Your task to perform on an android device: Clear the cart on target.com. Search for "lenovo thinkpad" on target.com, select the first entry, add it to the cart, then select checkout. Image 0: 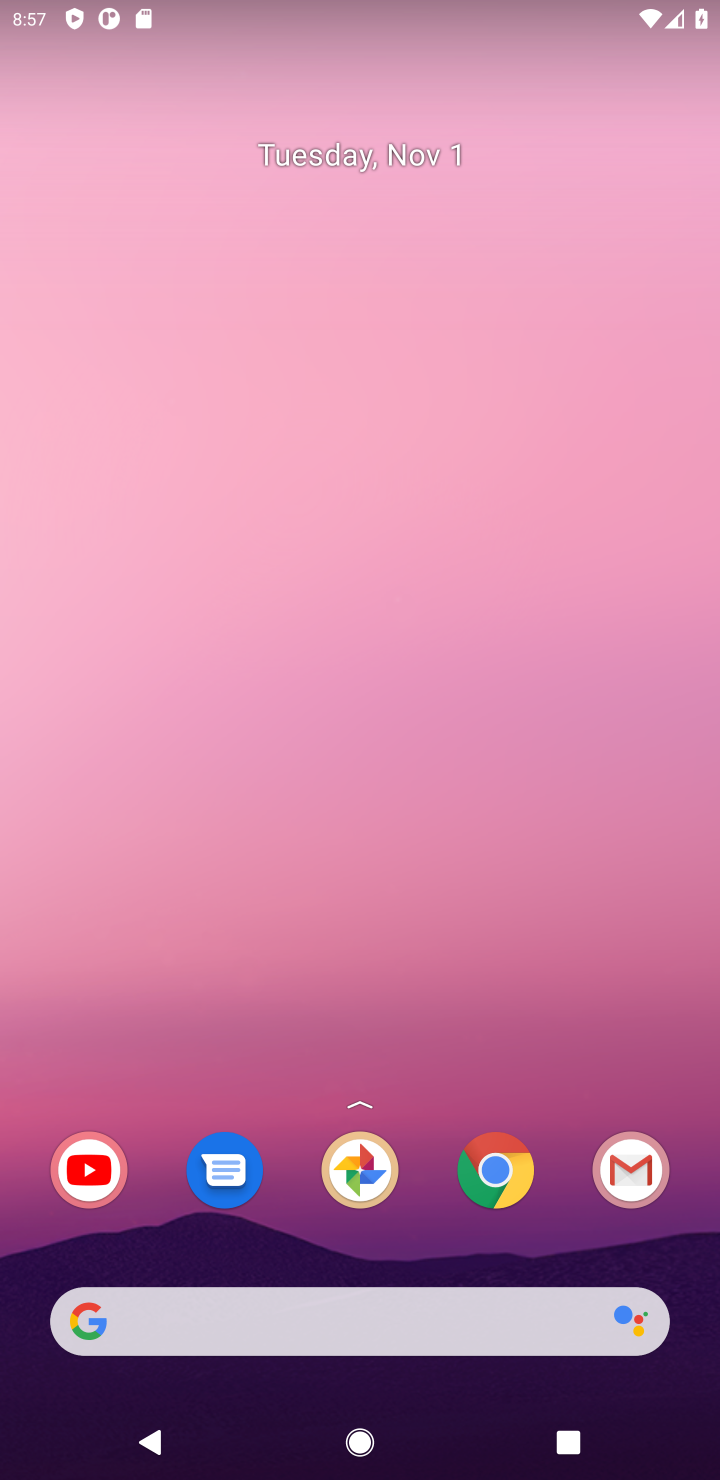
Step 0: click (486, 1209)
Your task to perform on an android device: Clear the cart on target.com. Search for "lenovo thinkpad" on target.com, select the first entry, add it to the cart, then select checkout. Image 1: 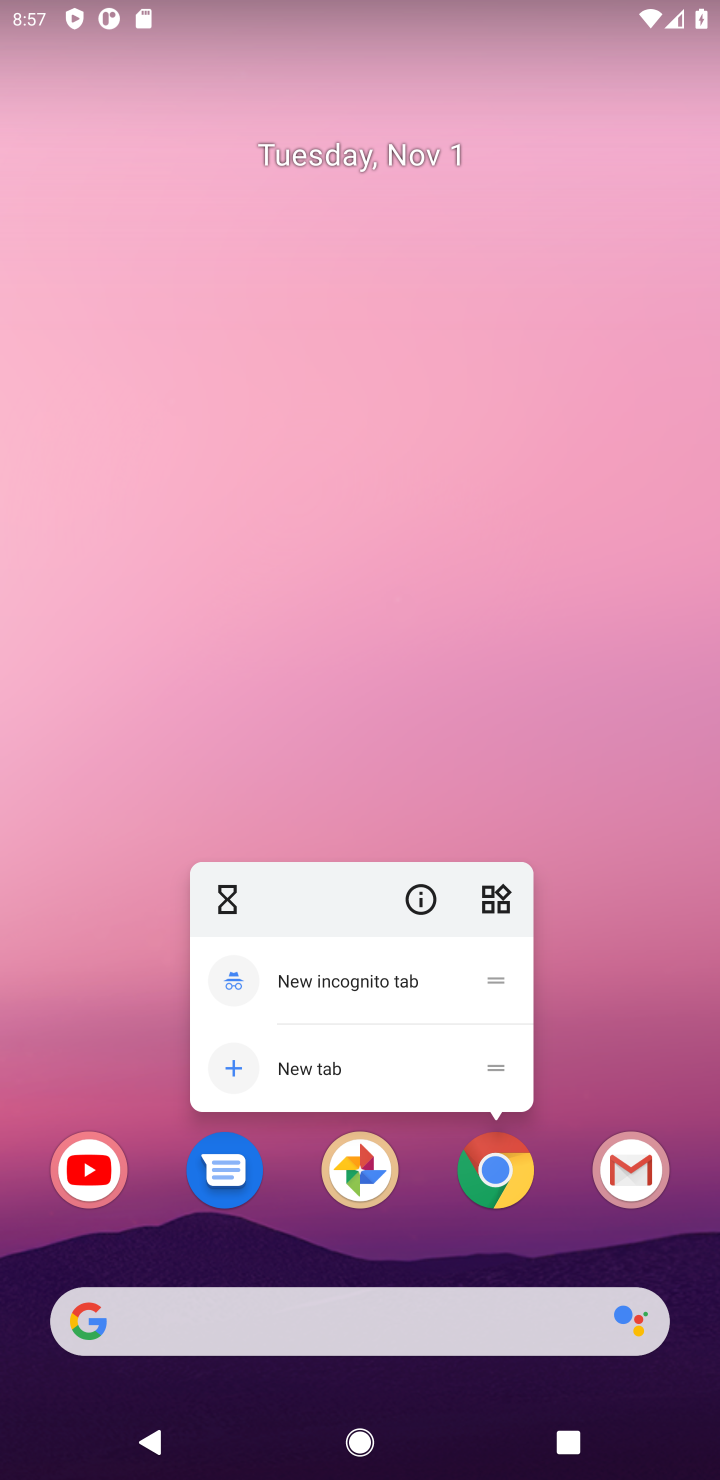
Step 1: click (511, 1195)
Your task to perform on an android device: Clear the cart on target.com. Search for "lenovo thinkpad" on target.com, select the first entry, add it to the cart, then select checkout. Image 2: 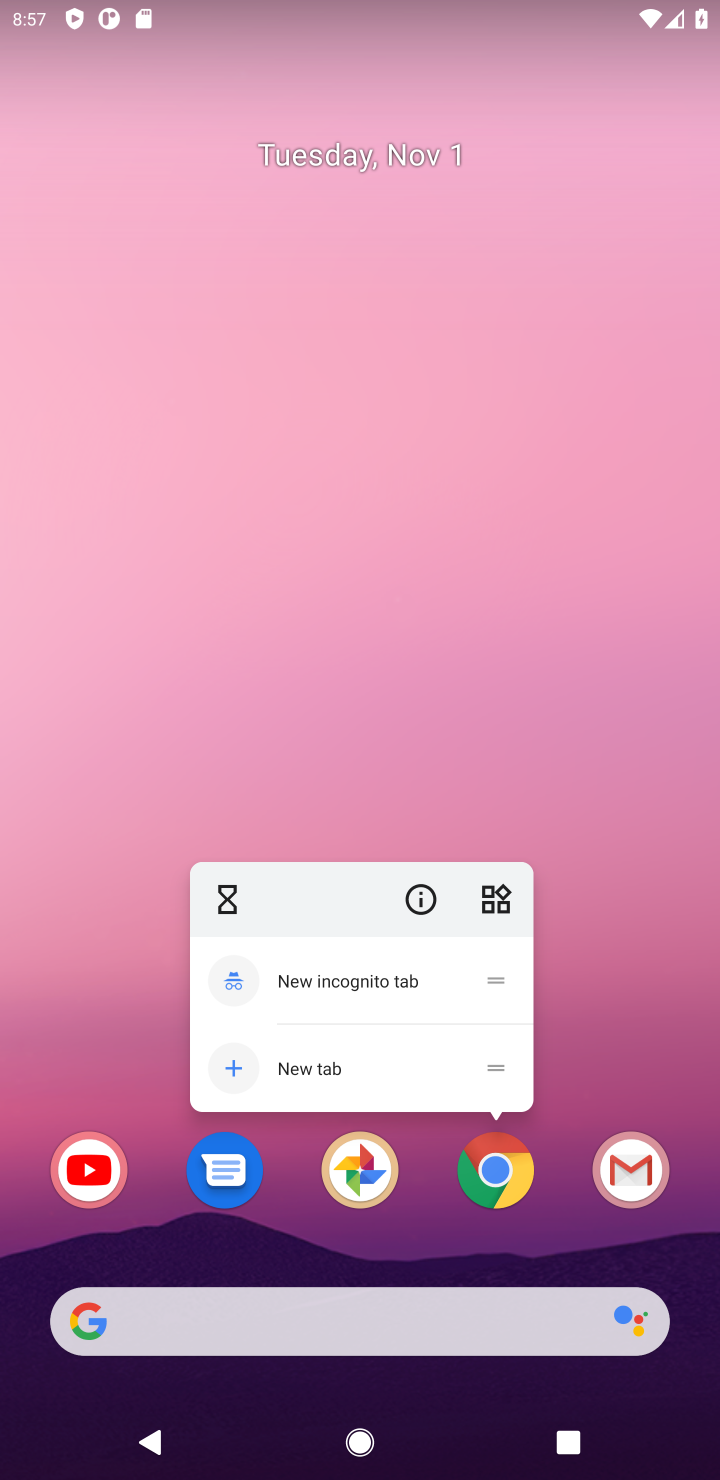
Step 2: click (515, 1174)
Your task to perform on an android device: Clear the cart on target.com. Search for "lenovo thinkpad" on target.com, select the first entry, add it to the cart, then select checkout. Image 3: 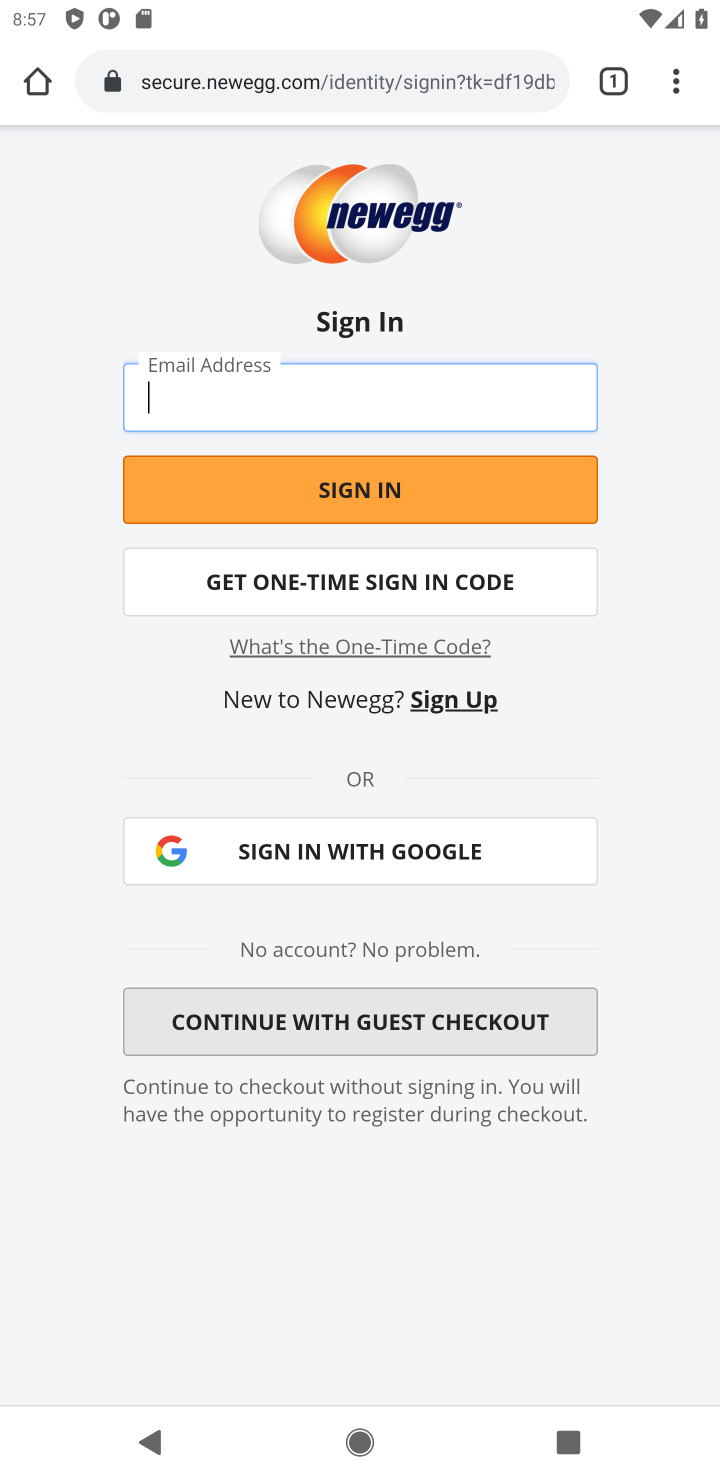
Step 3: click (383, 68)
Your task to perform on an android device: Clear the cart on target.com. Search for "lenovo thinkpad" on target.com, select the first entry, add it to the cart, then select checkout. Image 4: 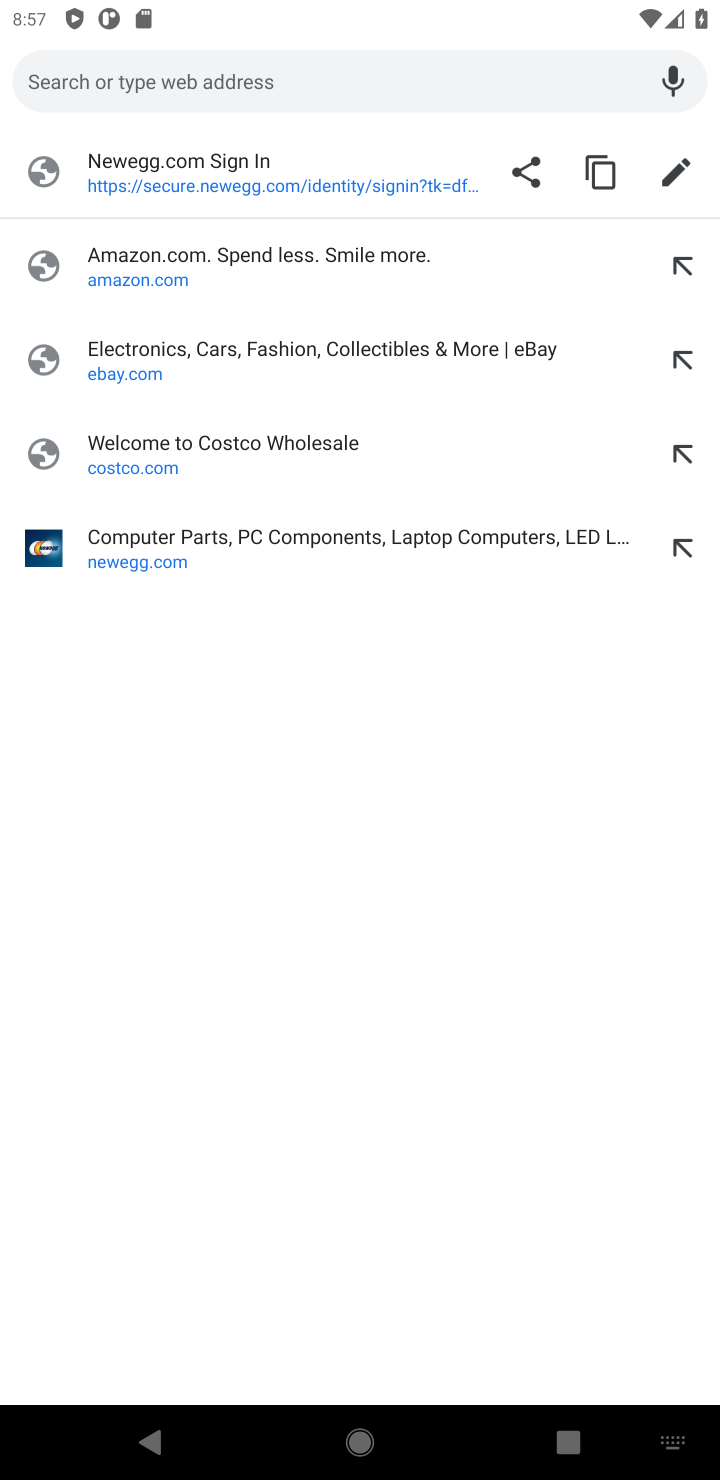
Step 4: type "target.com"
Your task to perform on an android device: Clear the cart on target.com. Search for "lenovo thinkpad" on target.com, select the first entry, add it to the cart, then select checkout. Image 5: 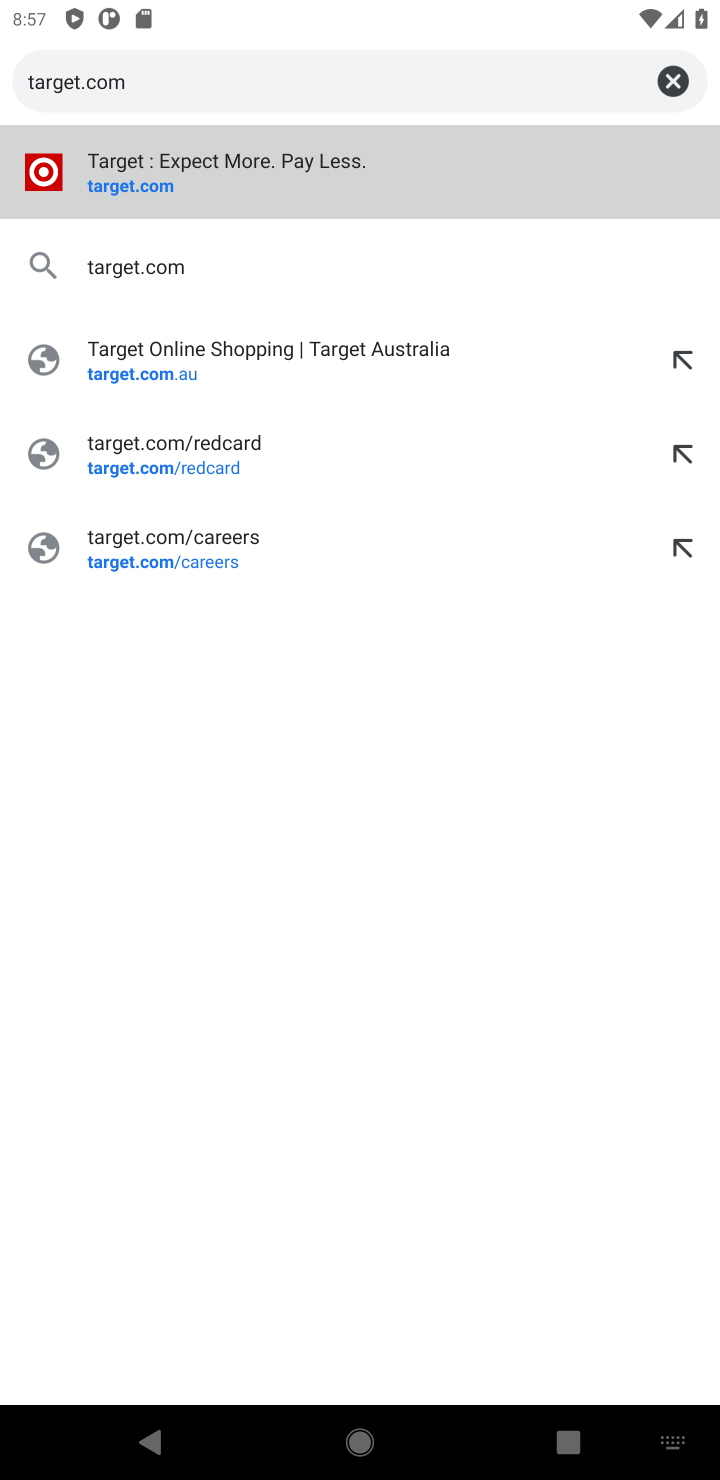
Step 5: type ""
Your task to perform on an android device: Clear the cart on target.com. Search for "lenovo thinkpad" on target.com, select the first entry, add it to the cart, then select checkout. Image 6: 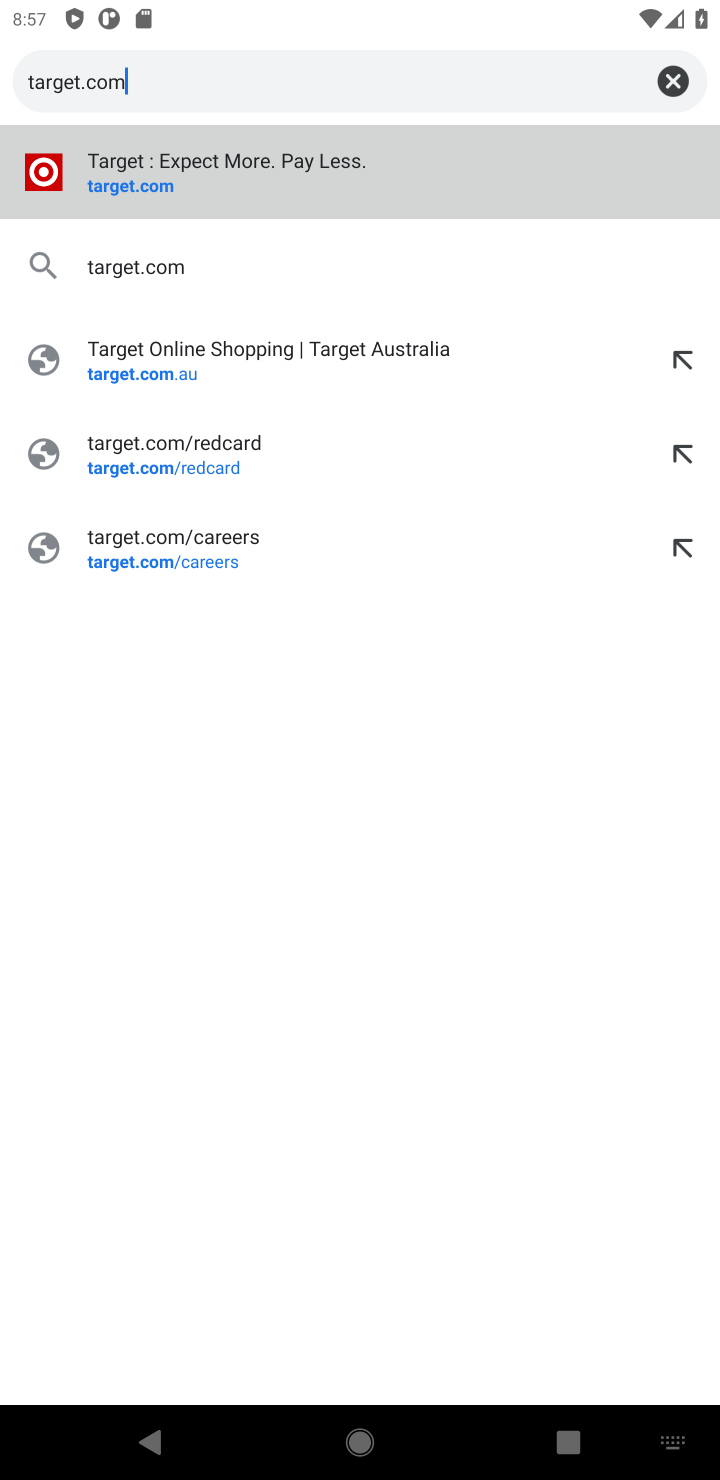
Step 6: press enter
Your task to perform on an android device: Clear the cart on target.com. Search for "lenovo thinkpad" on target.com, select the first entry, add it to the cart, then select checkout. Image 7: 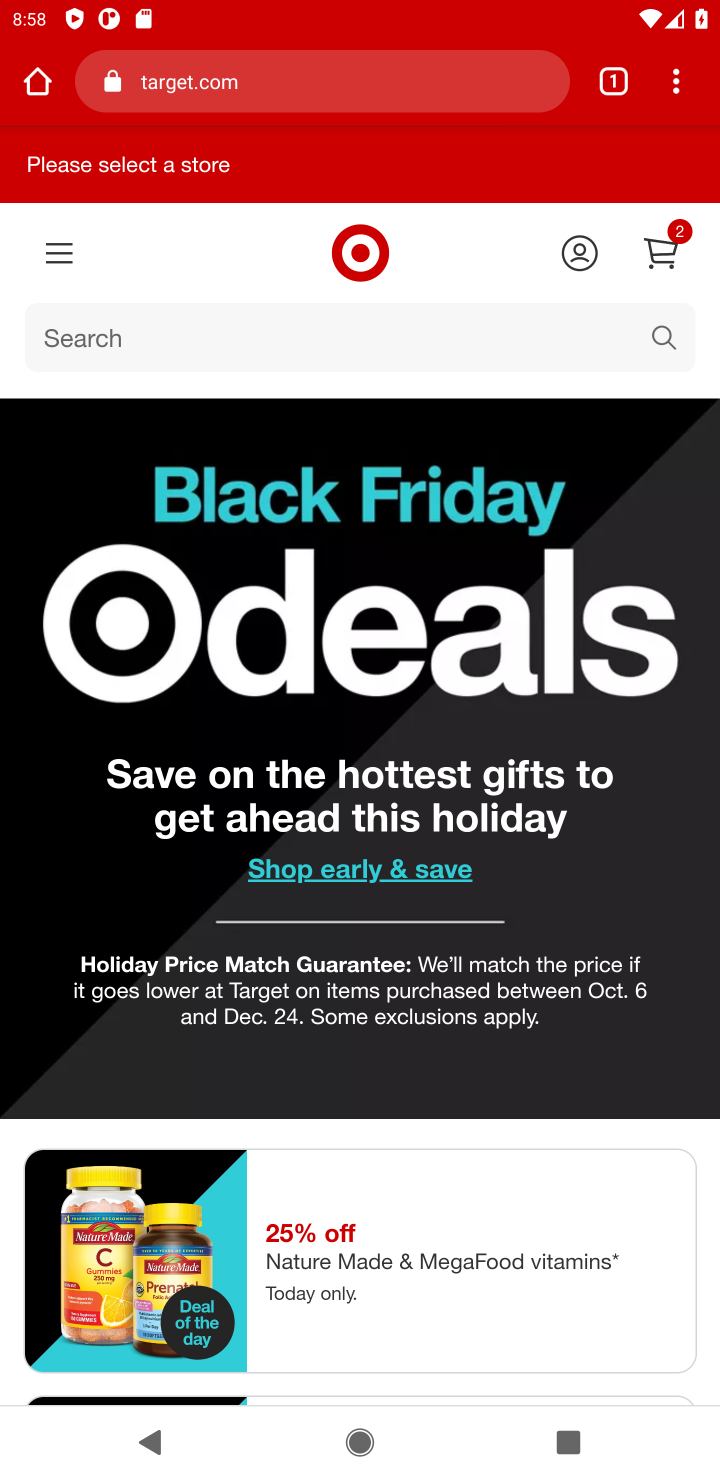
Step 7: click (416, 362)
Your task to perform on an android device: Clear the cart on target.com. Search for "lenovo thinkpad" on target.com, select the first entry, add it to the cart, then select checkout. Image 8: 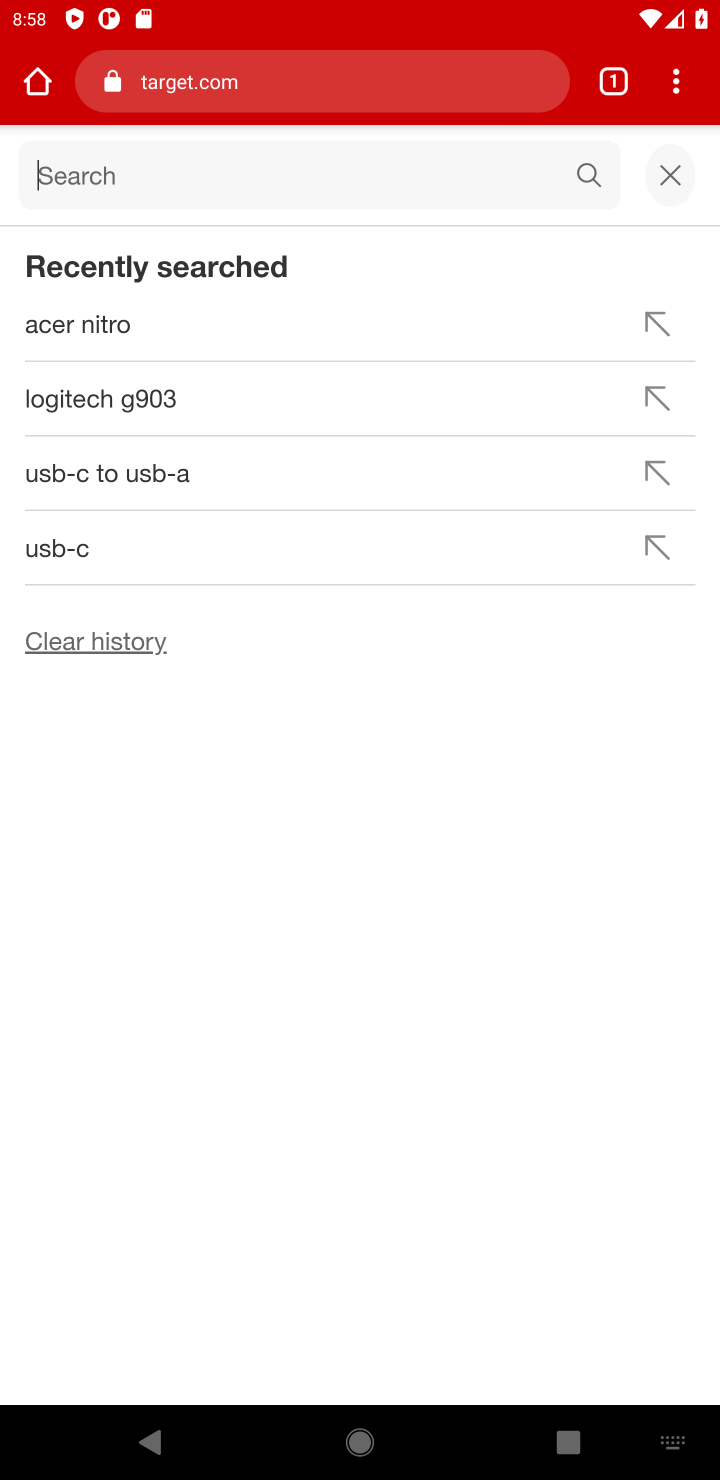
Step 8: type "lenovo thinkpad"
Your task to perform on an android device: Clear the cart on target.com. Search for "lenovo thinkpad" on target.com, select the first entry, add it to the cart, then select checkout. Image 9: 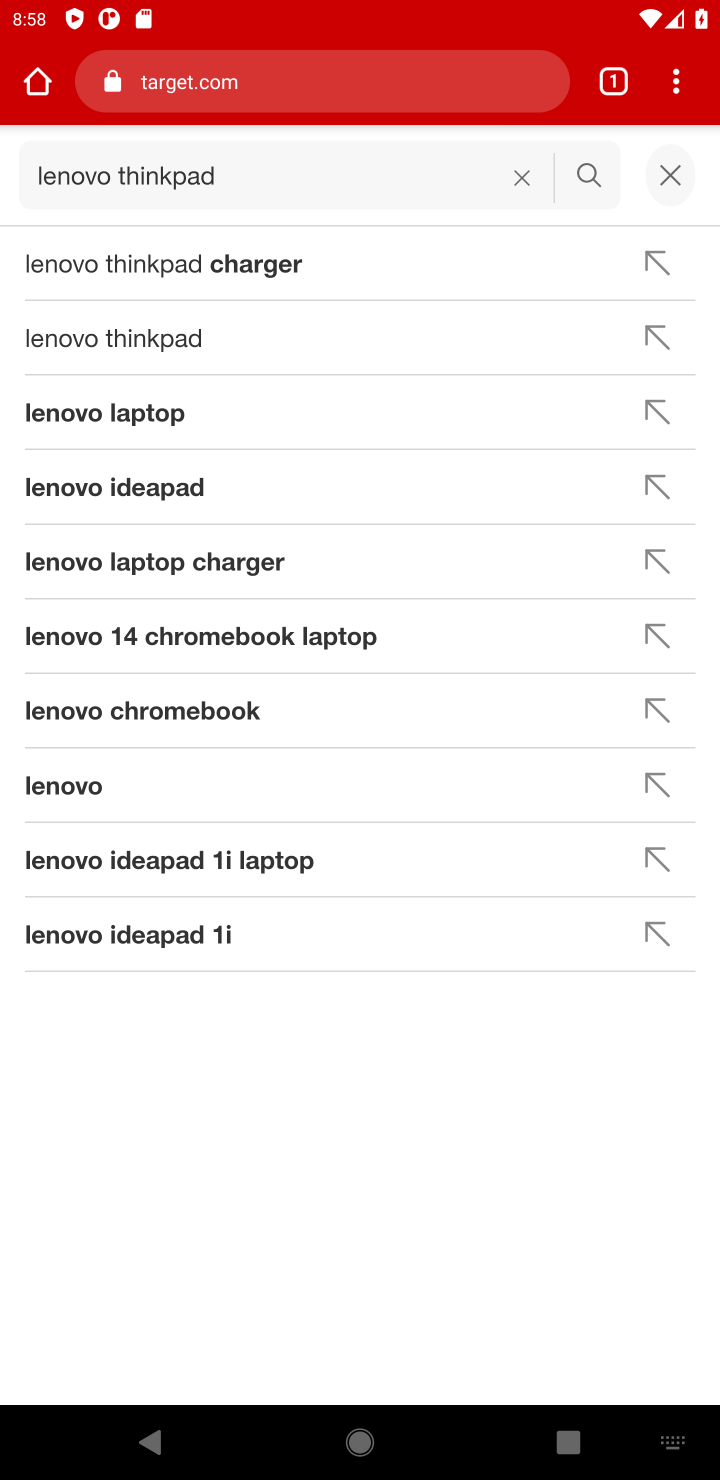
Step 9: press enter
Your task to perform on an android device: Clear the cart on target.com. Search for "lenovo thinkpad" on target.com, select the first entry, add it to the cart, then select checkout. Image 10: 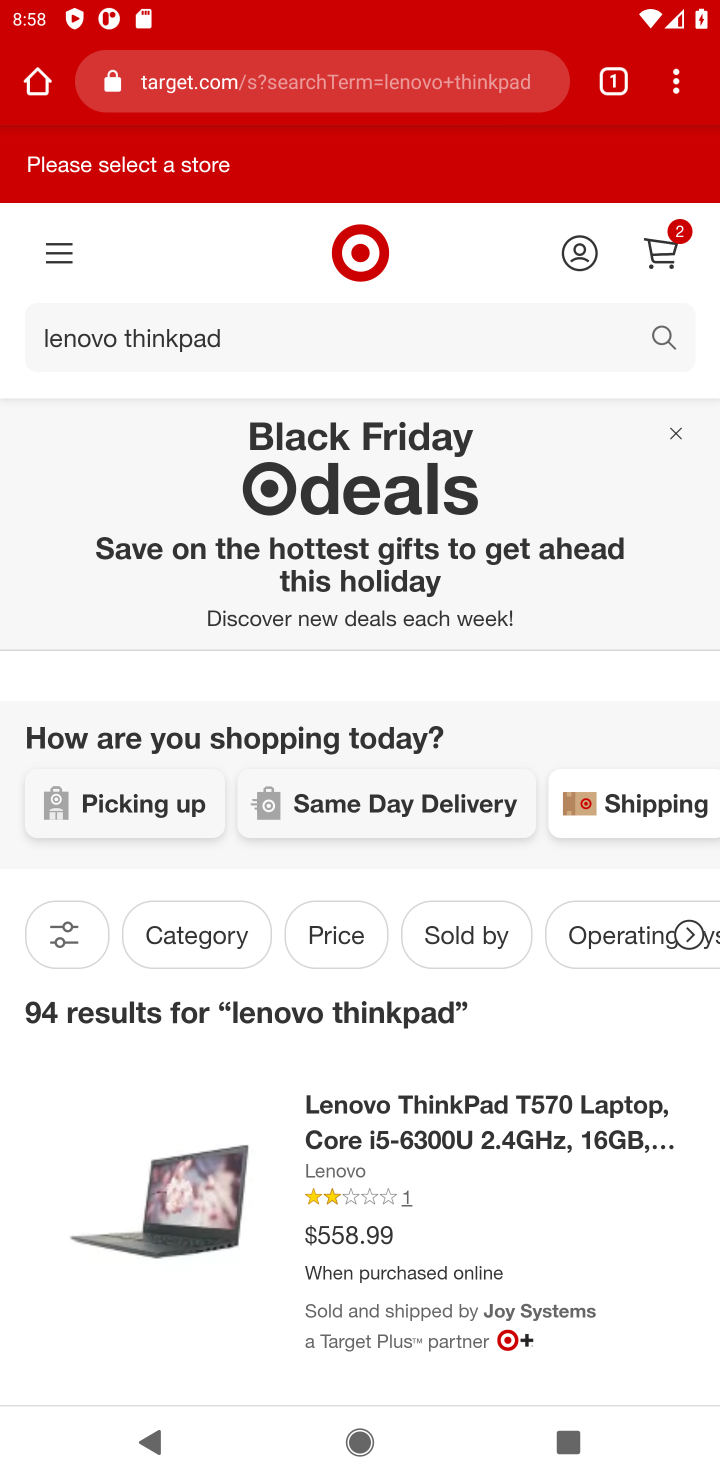
Step 10: click (555, 1134)
Your task to perform on an android device: Clear the cart on target.com. Search for "lenovo thinkpad" on target.com, select the first entry, add it to the cart, then select checkout. Image 11: 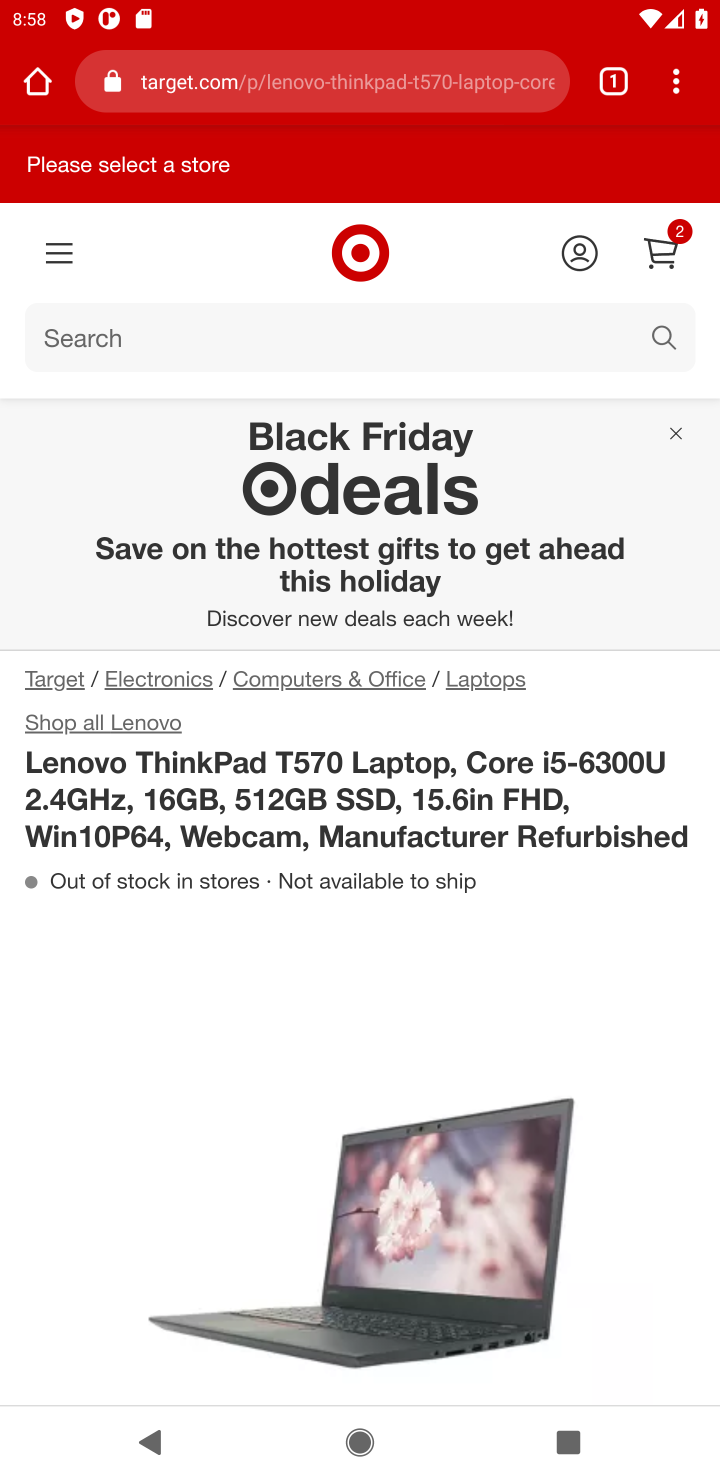
Step 11: drag from (449, 1112) to (333, 403)
Your task to perform on an android device: Clear the cart on target.com. Search for "lenovo thinkpad" on target.com, select the first entry, add it to the cart, then select checkout. Image 12: 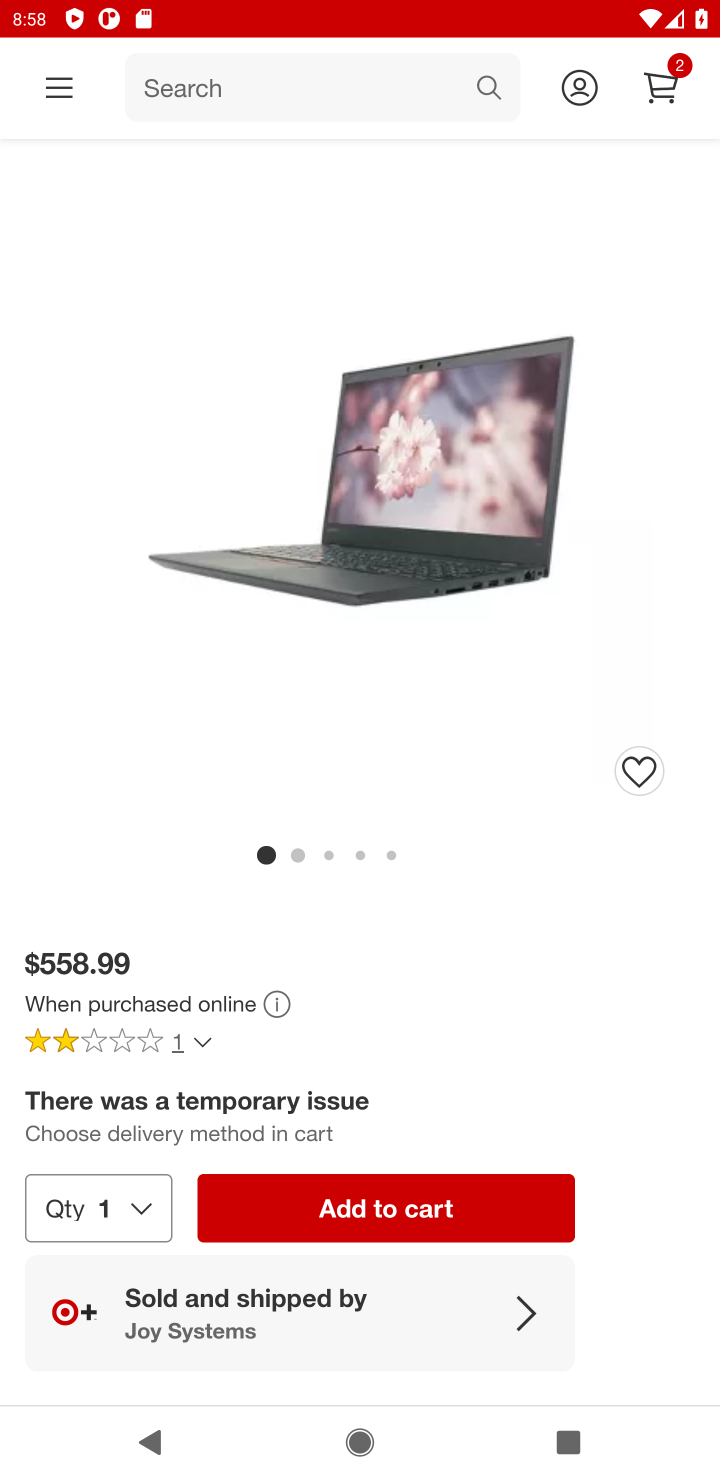
Step 12: click (506, 1214)
Your task to perform on an android device: Clear the cart on target.com. Search for "lenovo thinkpad" on target.com, select the first entry, add it to the cart, then select checkout. Image 13: 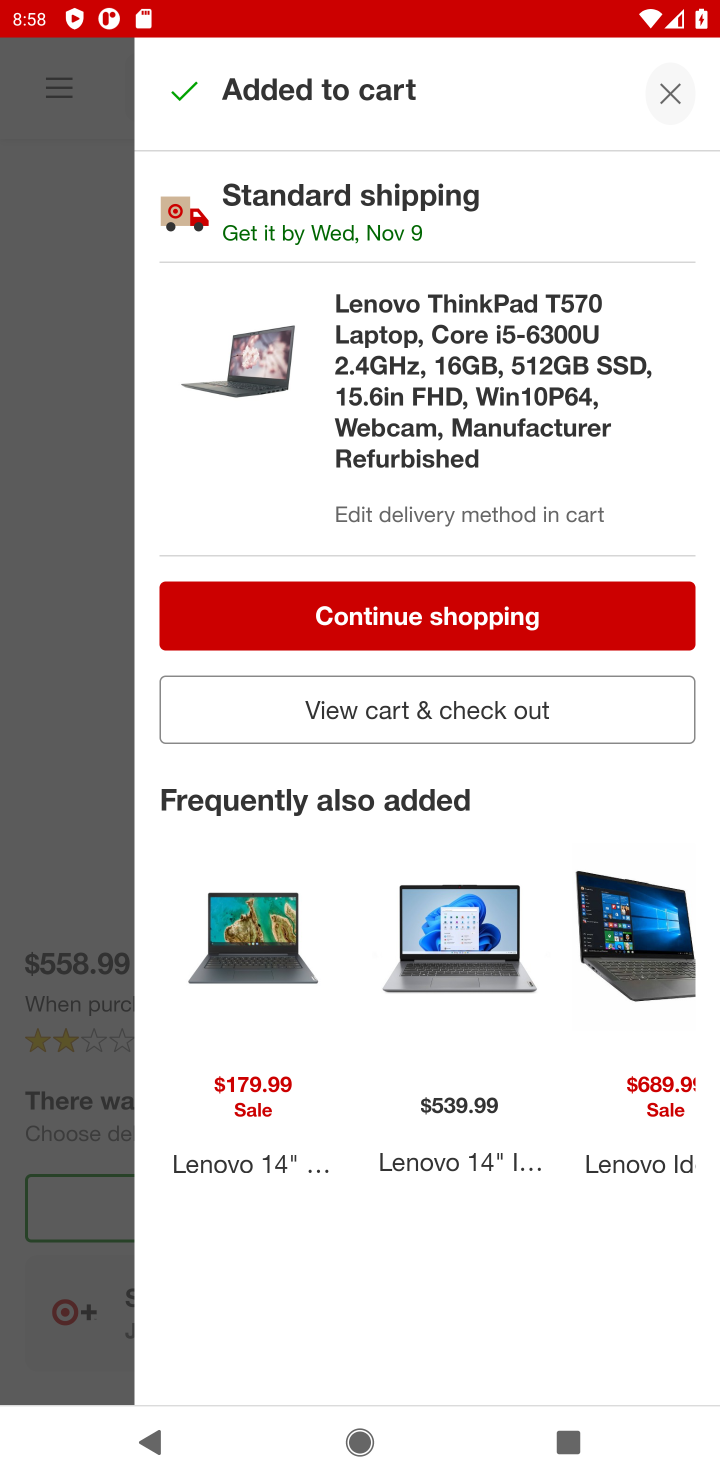
Step 13: click (393, 705)
Your task to perform on an android device: Clear the cart on target.com. Search for "lenovo thinkpad" on target.com, select the first entry, add it to the cart, then select checkout. Image 14: 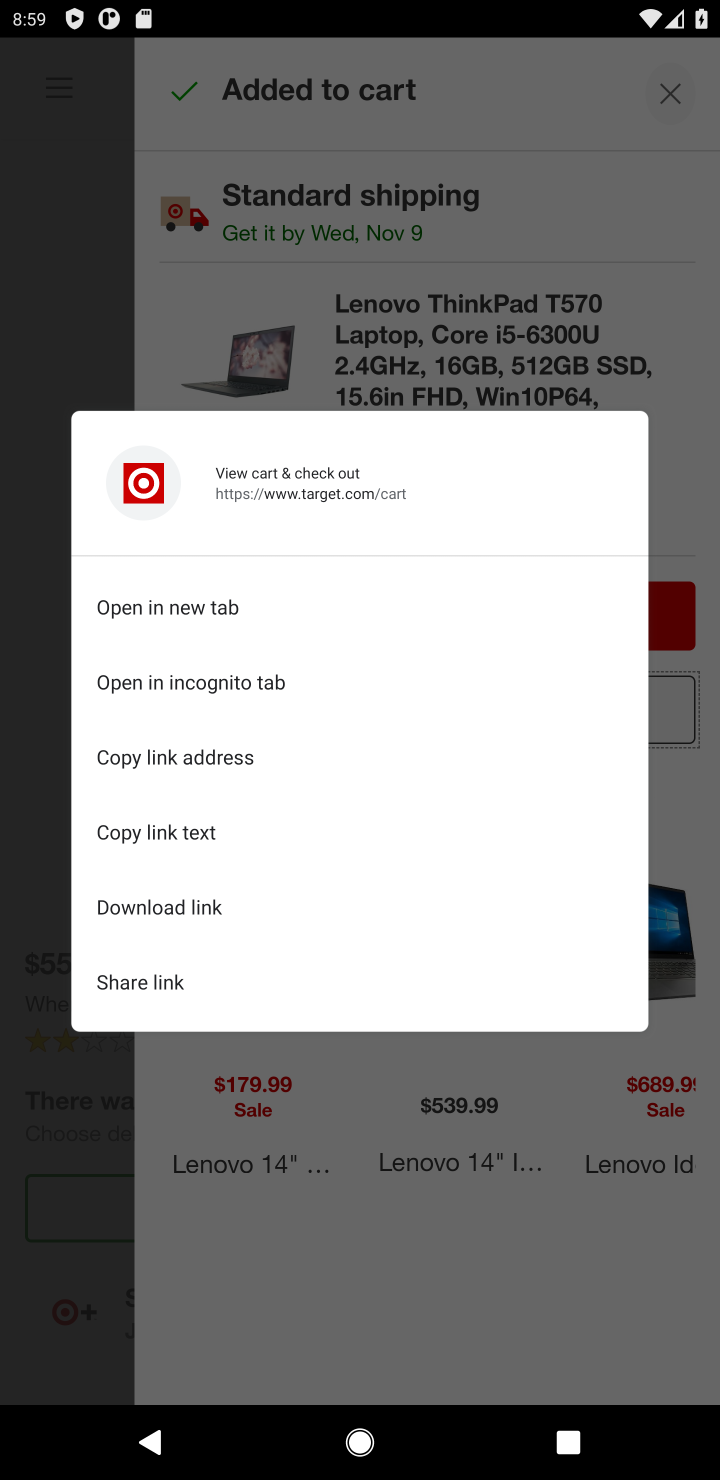
Step 14: click (715, 866)
Your task to perform on an android device: Clear the cart on target.com. Search for "lenovo thinkpad" on target.com, select the first entry, add it to the cart, then select checkout. Image 15: 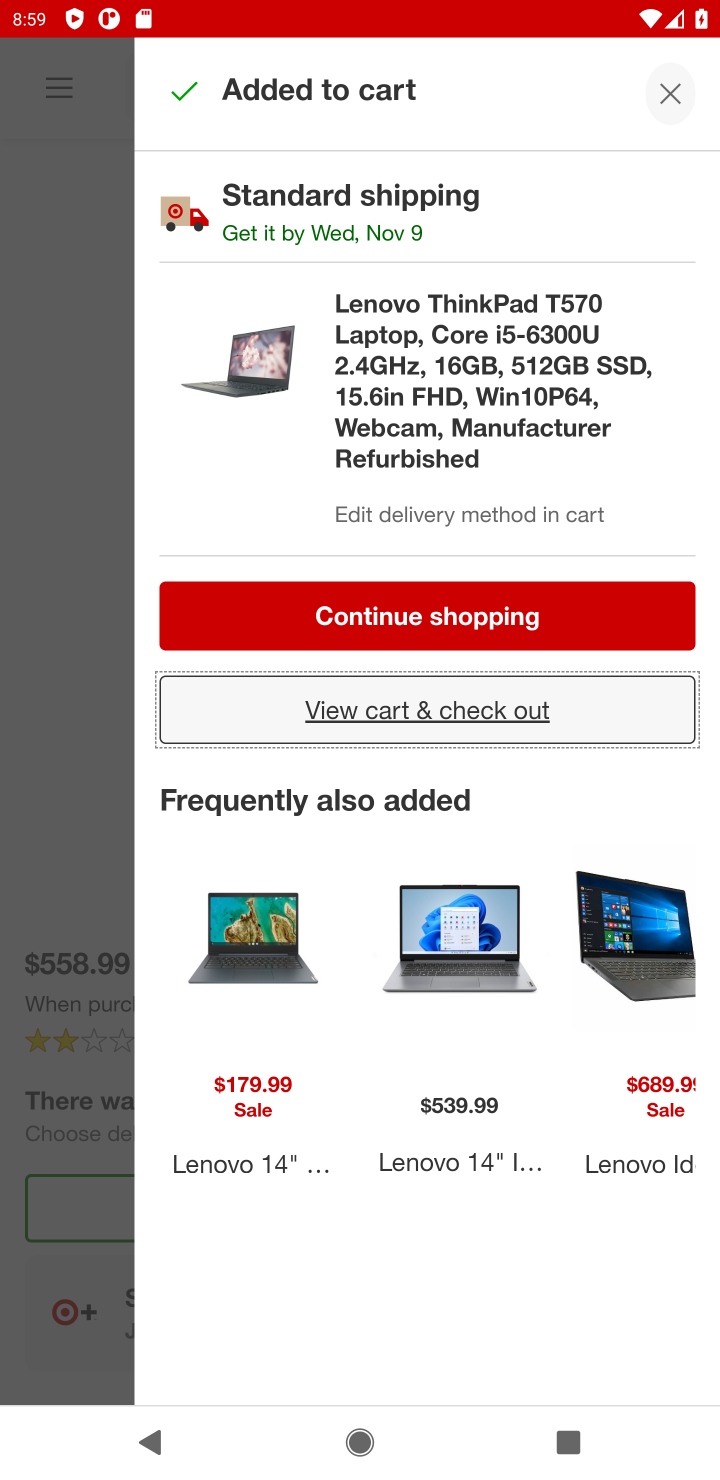
Step 15: click (504, 714)
Your task to perform on an android device: Clear the cart on target.com. Search for "lenovo thinkpad" on target.com, select the first entry, add it to the cart, then select checkout. Image 16: 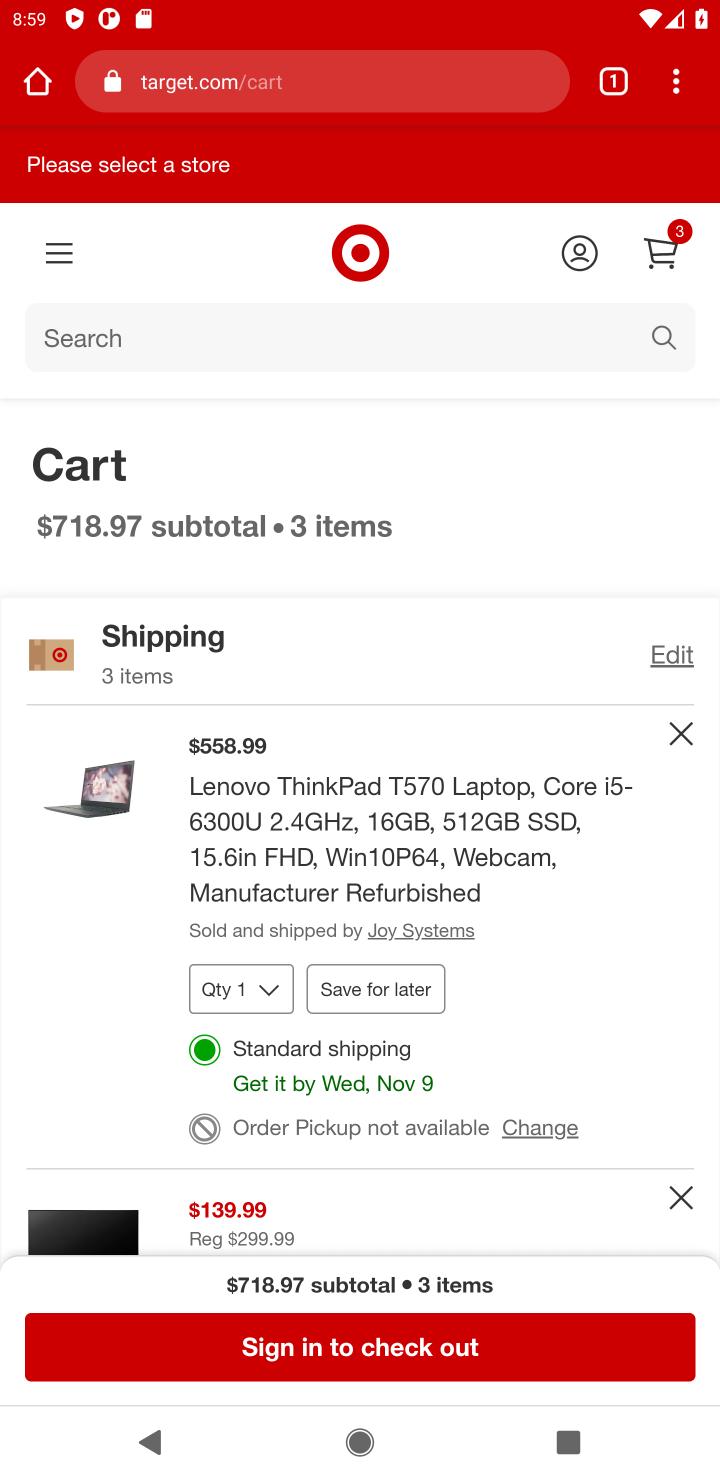
Step 16: click (432, 1358)
Your task to perform on an android device: Clear the cart on target.com. Search for "lenovo thinkpad" on target.com, select the first entry, add it to the cart, then select checkout. Image 17: 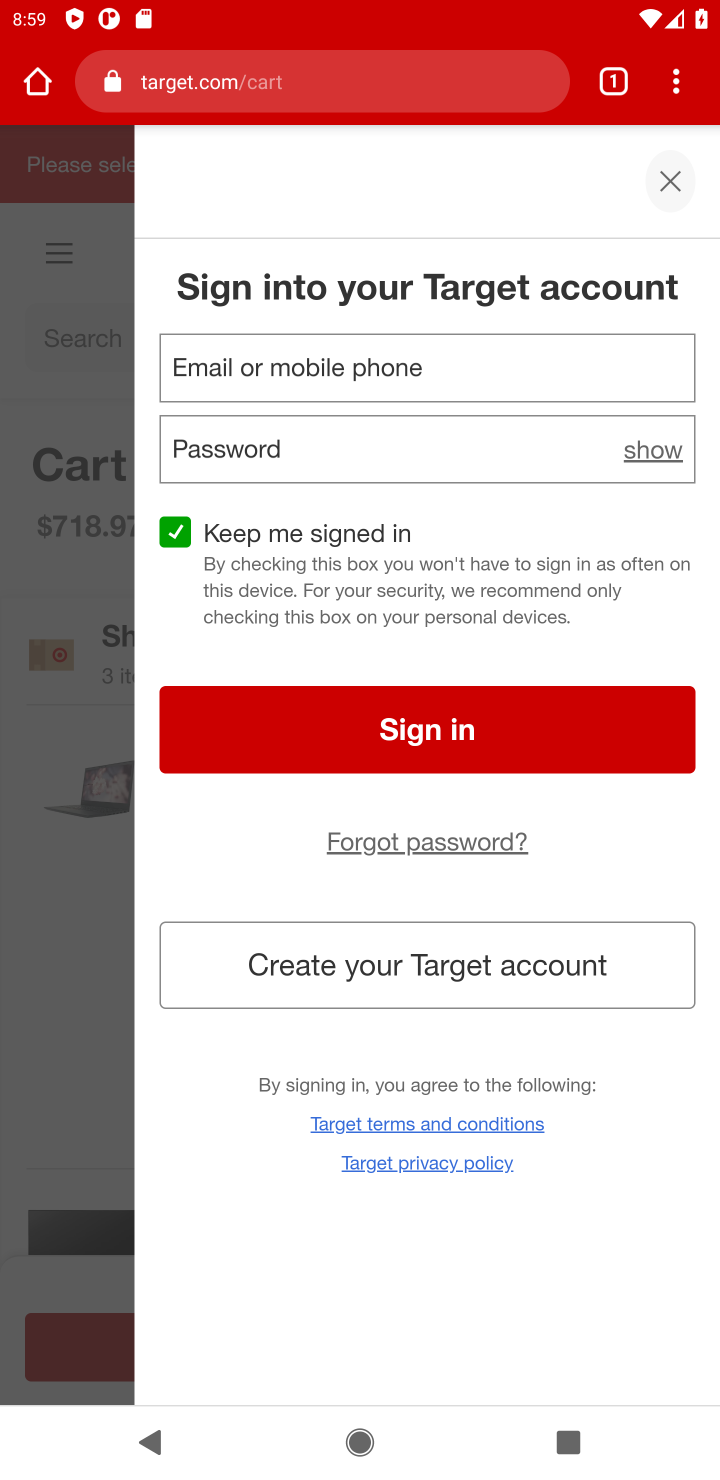
Step 17: task complete